Your task to perform on an android device: Check the news Image 0: 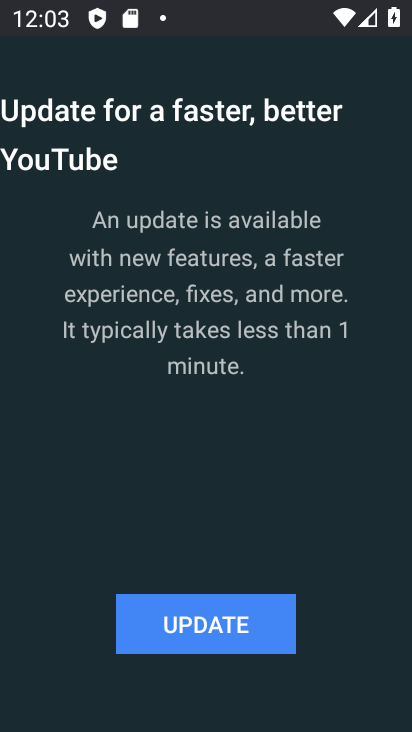
Step 0: press home button
Your task to perform on an android device: Check the news Image 1: 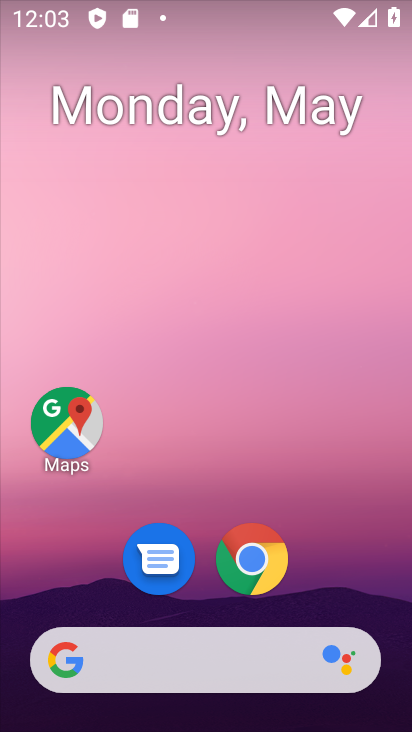
Step 1: click (174, 638)
Your task to perform on an android device: Check the news Image 2: 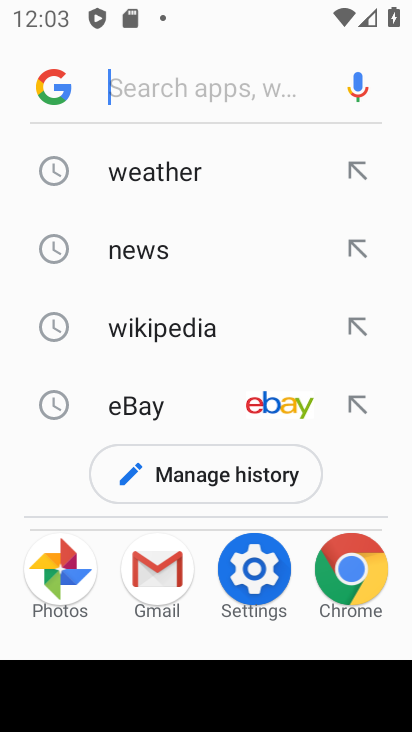
Step 2: click (150, 255)
Your task to perform on an android device: Check the news Image 3: 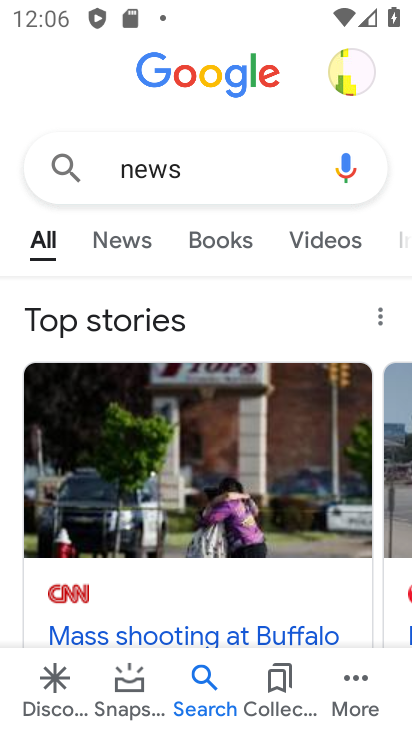
Step 3: task complete